Your task to perform on an android device: choose inbox layout in the gmail app Image 0: 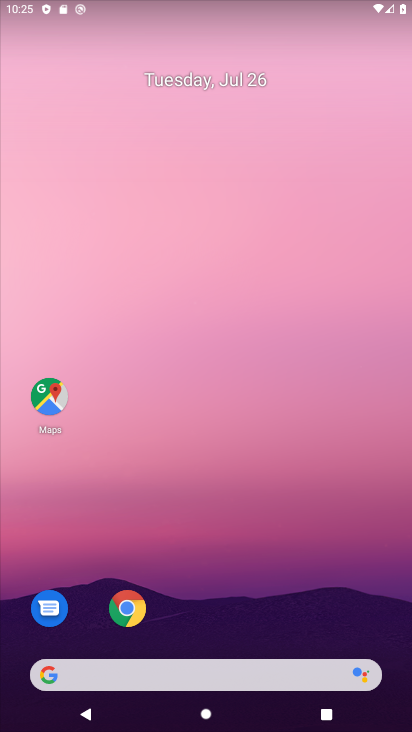
Step 0: drag from (248, 616) to (253, 37)
Your task to perform on an android device: choose inbox layout in the gmail app Image 1: 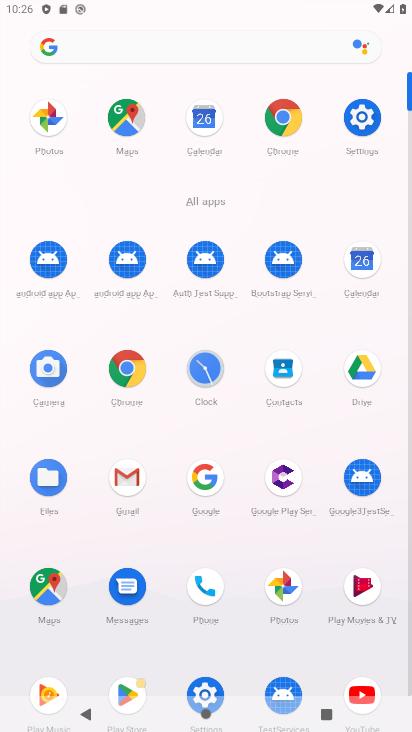
Step 1: click (138, 480)
Your task to perform on an android device: choose inbox layout in the gmail app Image 2: 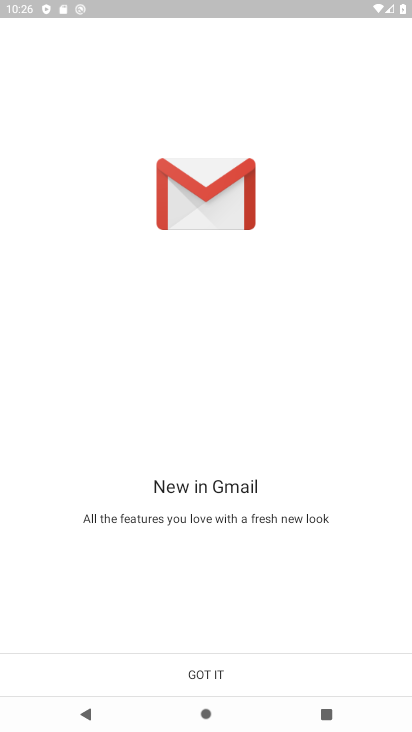
Step 2: click (257, 673)
Your task to perform on an android device: choose inbox layout in the gmail app Image 3: 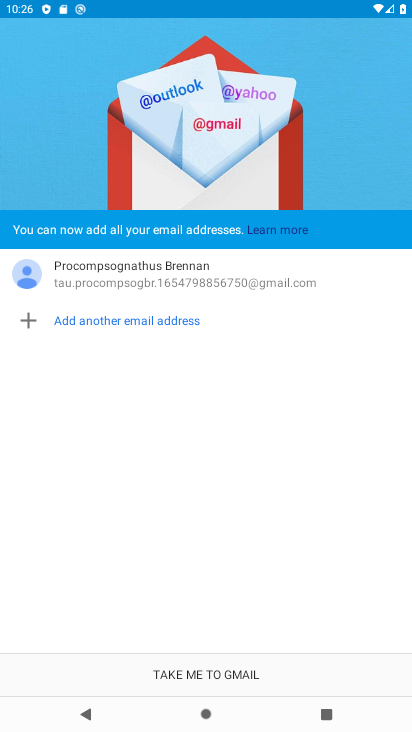
Step 3: click (230, 677)
Your task to perform on an android device: choose inbox layout in the gmail app Image 4: 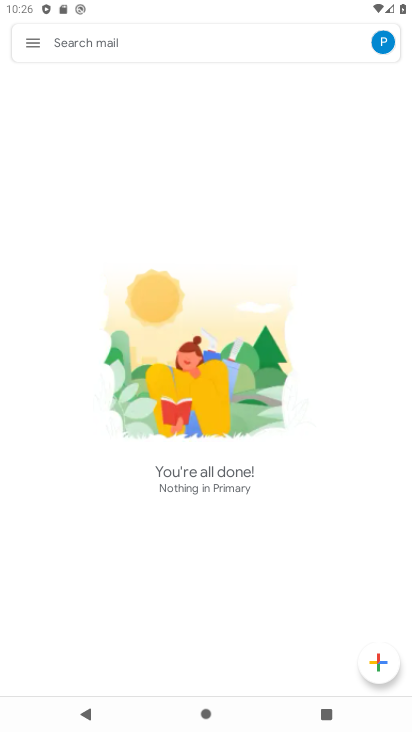
Step 4: click (28, 43)
Your task to perform on an android device: choose inbox layout in the gmail app Image 5: 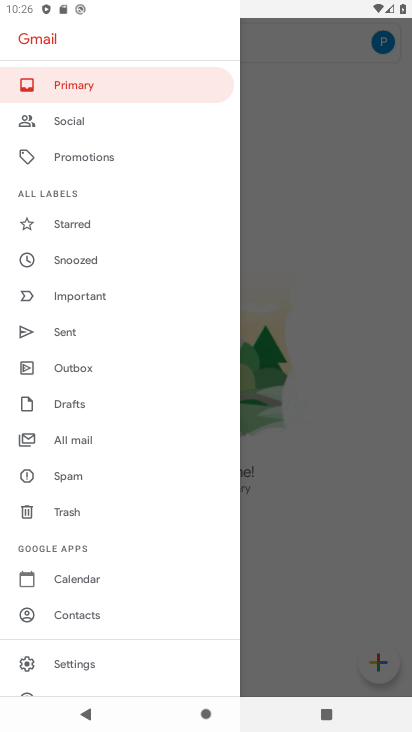
Step 5: click (84, 663)
Your task to perform on an android device: choose inbox layout in the gmail app Image 6: 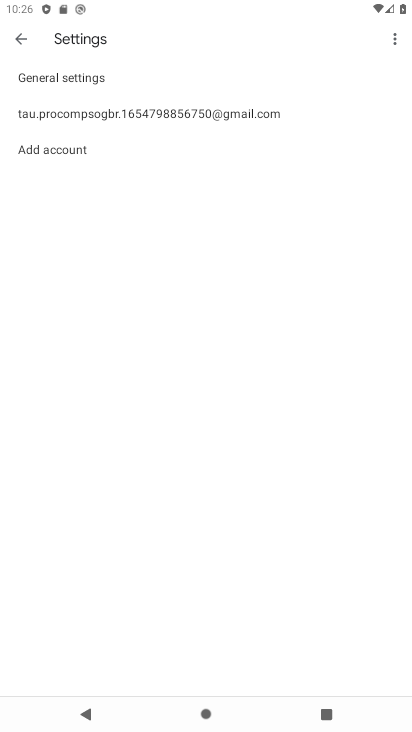
Step 6: click (113, 108)
Your task to perform on an android device: choose inbox layout in the gmail app Image 7: 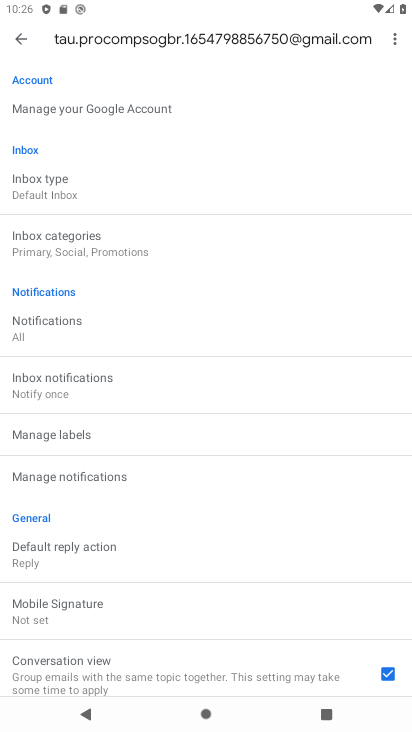
Step 7: click (92, 192)
Your task to perform on an android device: choose inbox layout in the gmail app Image 8: 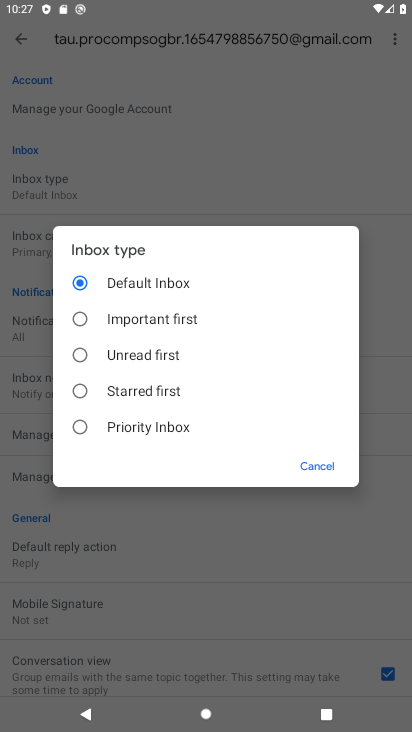
Step 8: task complete